Your task to perform on an android device: change the clock display to show seconds Image 0: 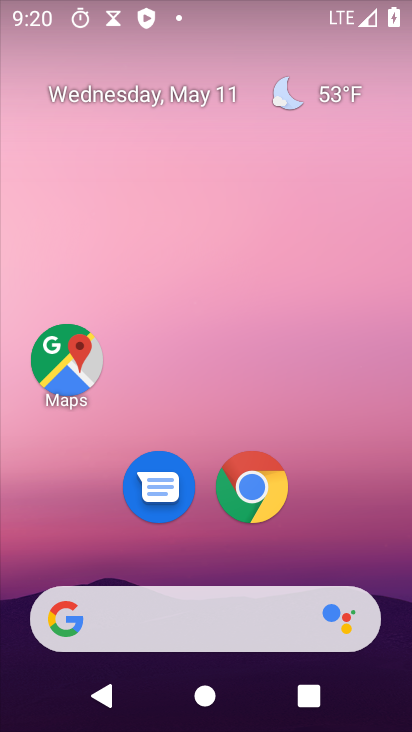
Step 0: drag from (356, 525) to (247, 115)
Your task to perform on an android device: change the clock display to show seconds Image 1: 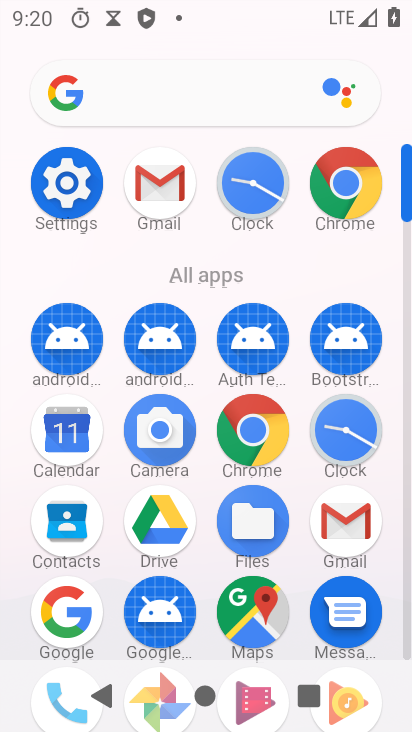
Step 1: click (255, 183)
Your task to perform on an android device: change the clock display to show seconds Image 2: 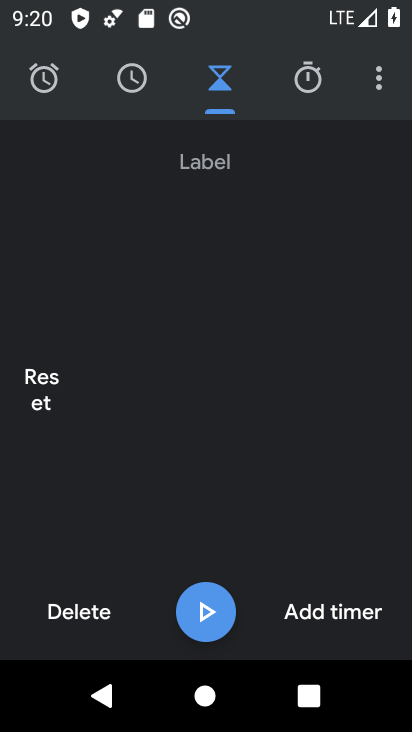
Step 2: click (379, 81)
Your task to perform on an android device: change the clock display to show seconds Image 3: 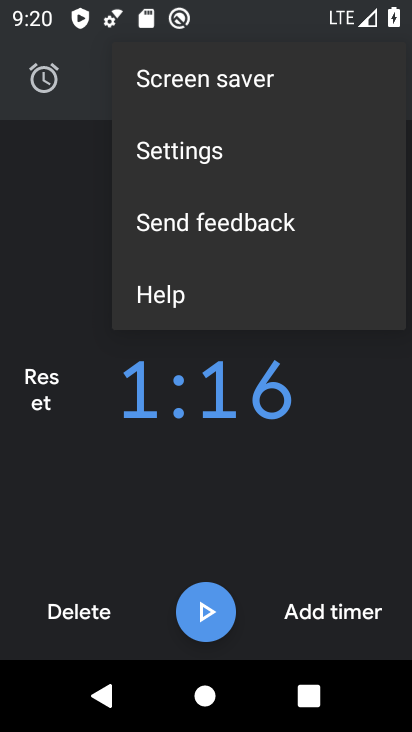
Step 3: click (171, 161)
Your task to perform on an android device: change the clock display to show seconds Image 4: 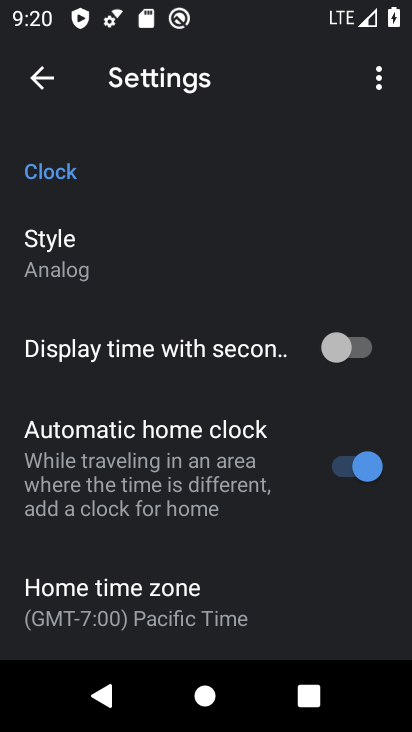
Step 4: click (331, 340)
Your task to perform on an android device: change the clock display to show seconds Image 5: 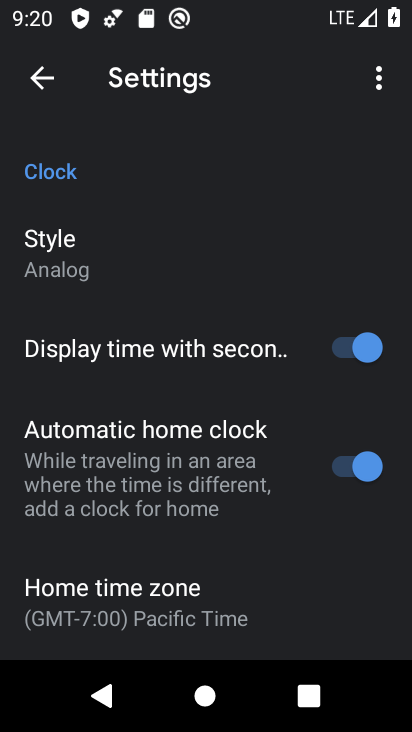
Step 5: task complete